Your task to perform on an android device: turn on airplane mode Image 0: 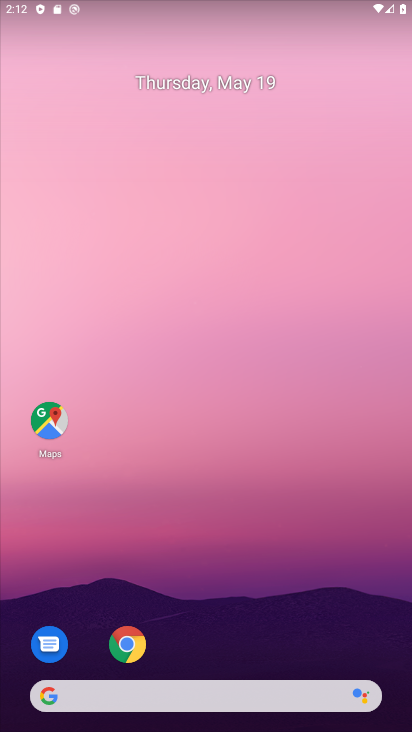
Step 0: drag from (290, 589) to (255, 216)
Your task to perform on an android device: turn on airplane mode Image 1: 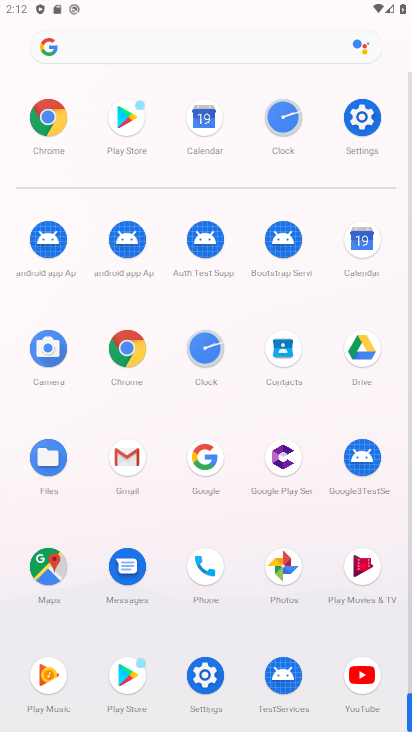
Step 1: click (356, 123)
Your task to perform on an android device: turn on airplane mode Image 2: 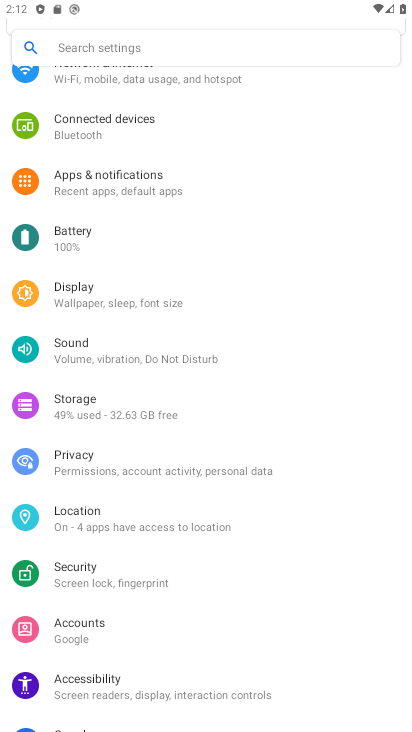
Step 2: drag from (161, 122) to (165, 327)
Your task to perform on an android device: turn on airplane mode Image 3: 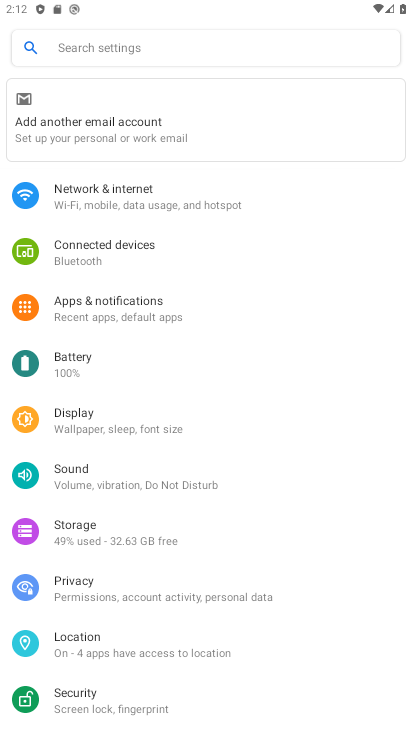
Step 3: click (143, 202)
Your task to perform on an android device: turn on airplane mode Image 4: 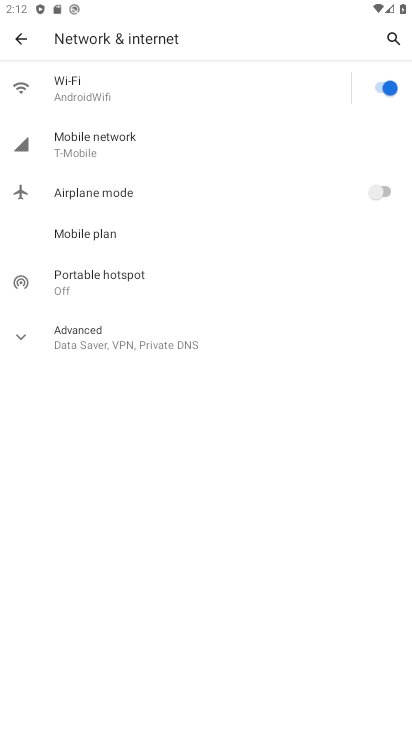
Step 4: click (378, 192)
Your task to perform on an android device: turn on airplane mode Image 5: 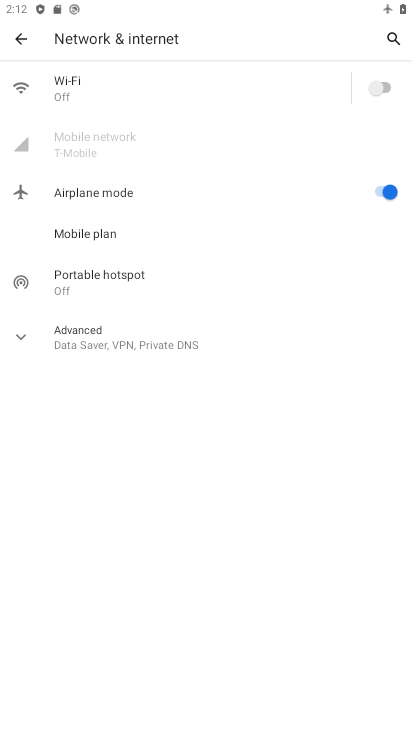
Step 5: task complete